Your task to perform on an android device: check the backup settings in the google photos Image 0: 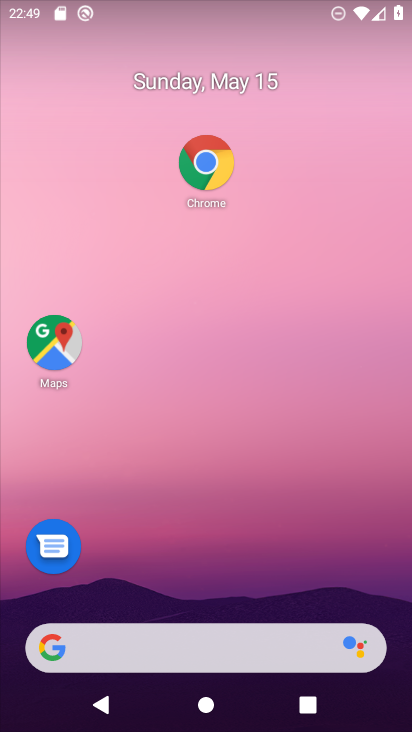
Step 0: drag from (268, 510) to (312, 166)
Your task to perform on an android device: check the backup settings in the google photos Image 1: 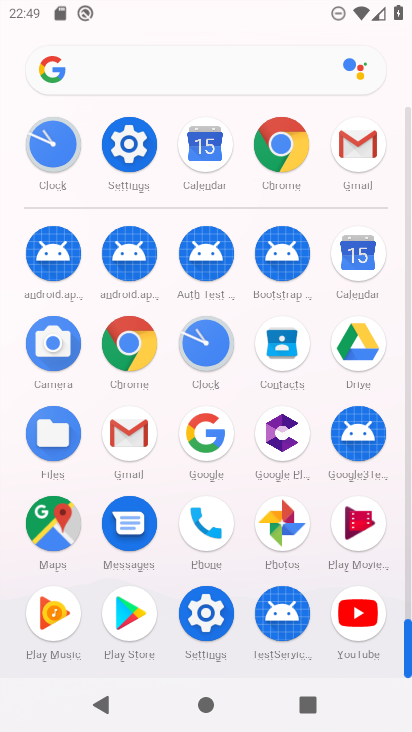
Step 1: click (292, 508)
Your task to perform on an android device: check the backup settings in the google photos Image 2: 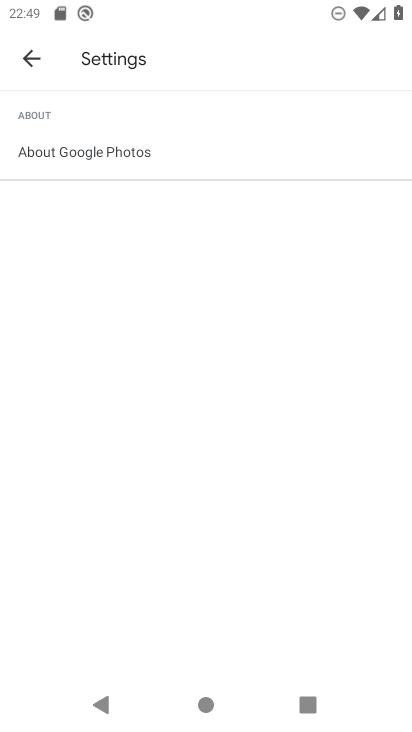
Step 2: click (27, 58)
Your task to perform on an android device: check the backup settings in the google photos Image 3: 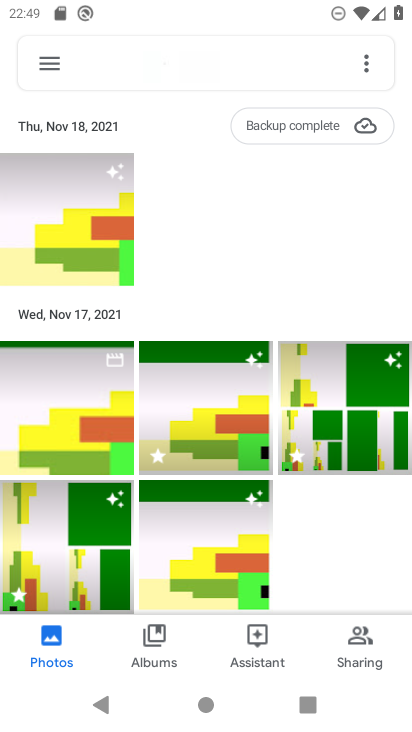
Step 3: click (37, 55)
Your task to perform on an android device: check the backup settings in the google photos Image 4: 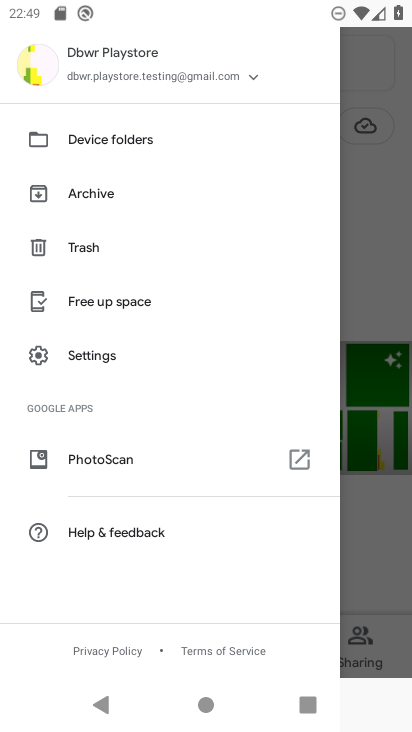
Step 4: click (100, 343)
Your task to perform on an android device: check the backup settings in the google photos Image 5: 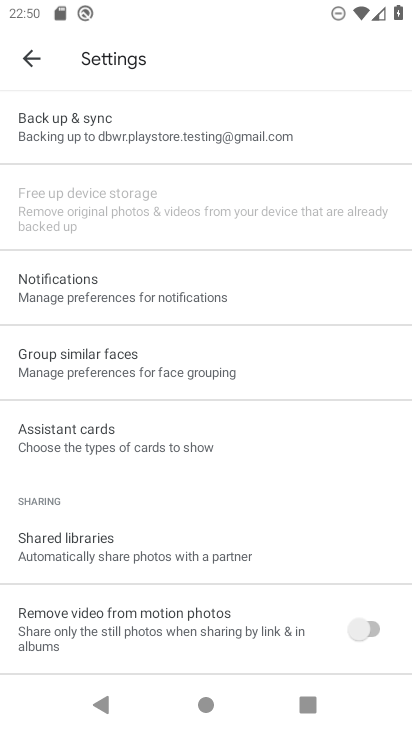
Step 5: click (146, 138)
Your task to perform on an android device: check the backup settings in the google photos Image 6: 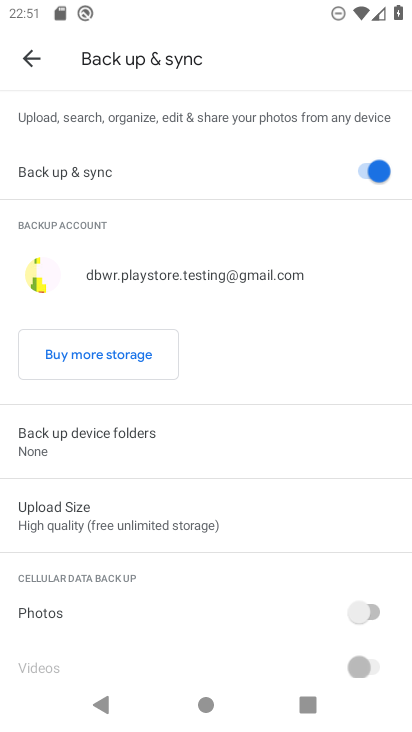
Step 6: task complete